Your task to perform on an android device: choose inbox layout in the gmail app Image 0: 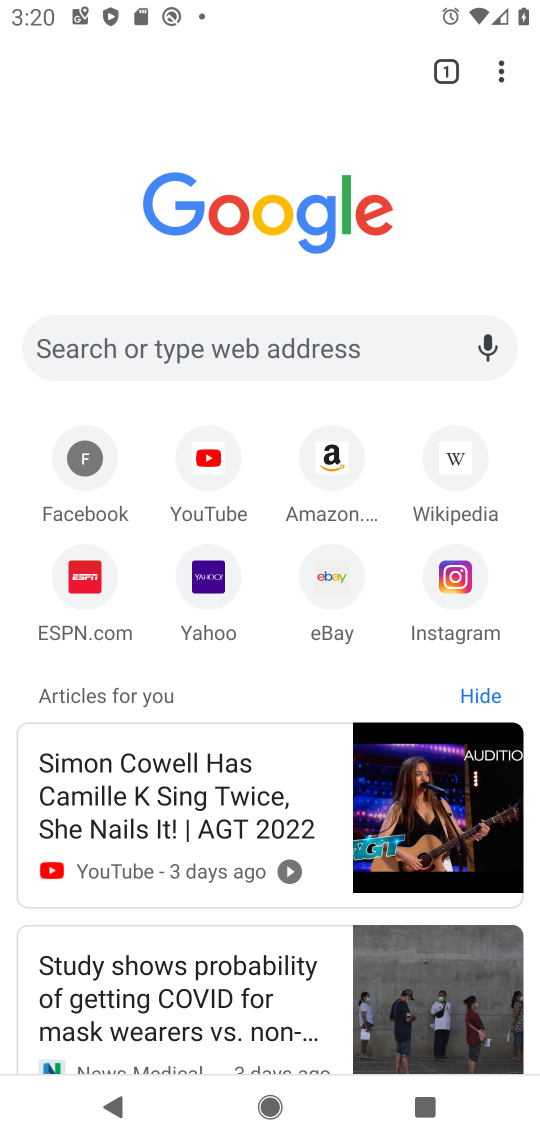
Step 0: press back button
Your task to perform on an android device: choose inbox layout in the gmail app Image 1: 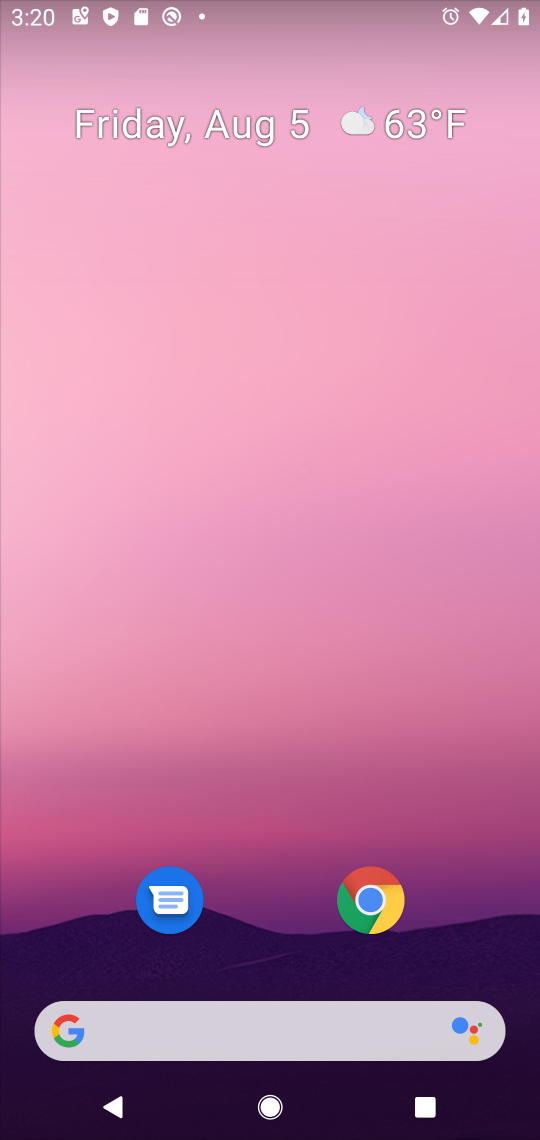
Step 1: drag from (312, 745) to (373, 19)
Your task to perform on an android device: choose inbox layout in the gmail app Image 2: 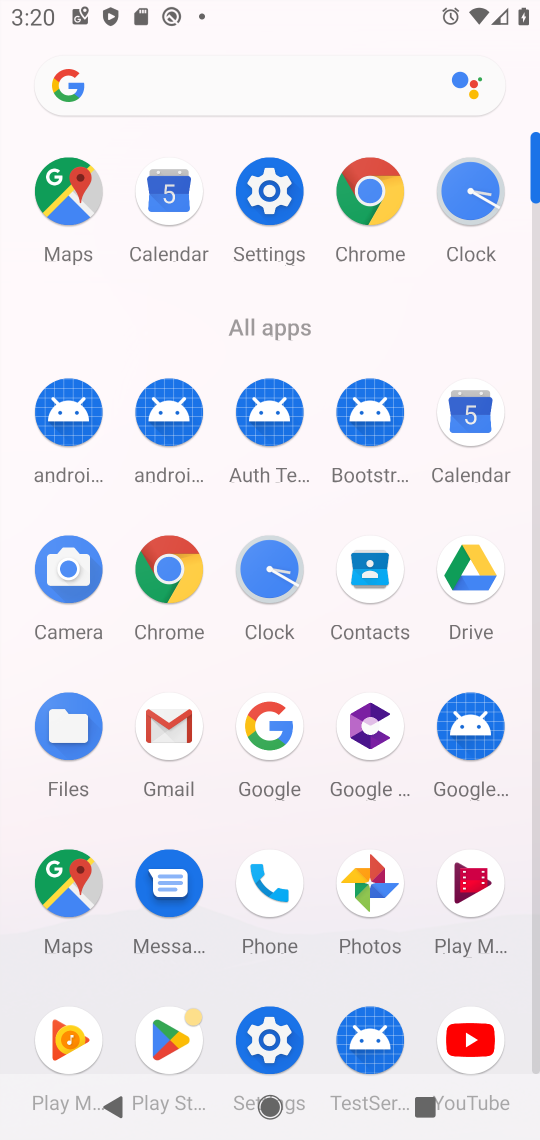
Step 2: click (158, 732)
Your task to perform on an android device: choose inbox layout in the gmail app Image 3: 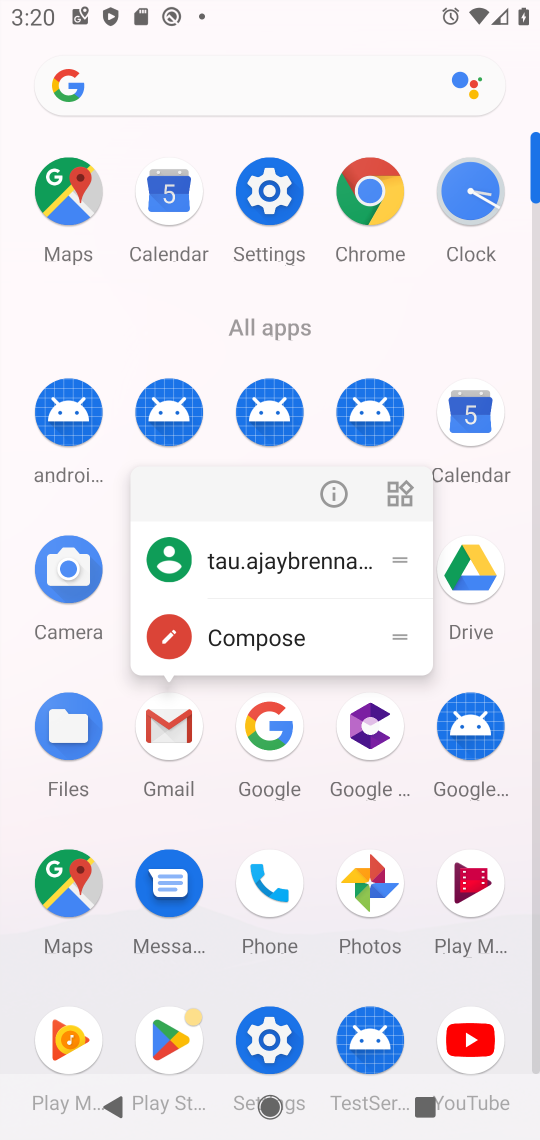
Step 3: click (167, 722)
Your task to perform on an android device: choose inbox layout in the gmail app Image 4: 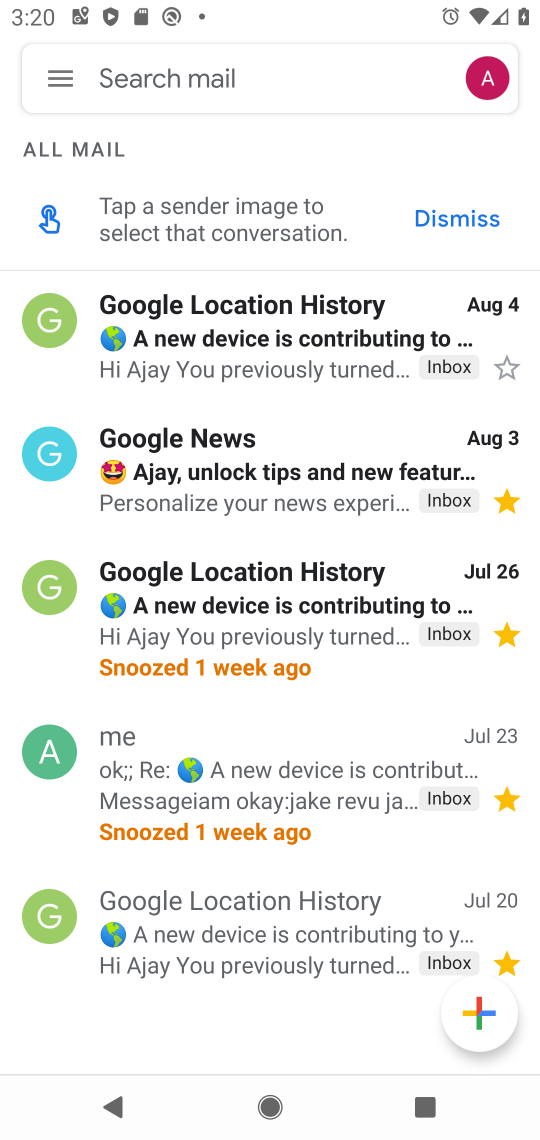
Step 4: click (481, 71)
Your task to perform on an android device: choose inbox layout in the gmail app Image 5: 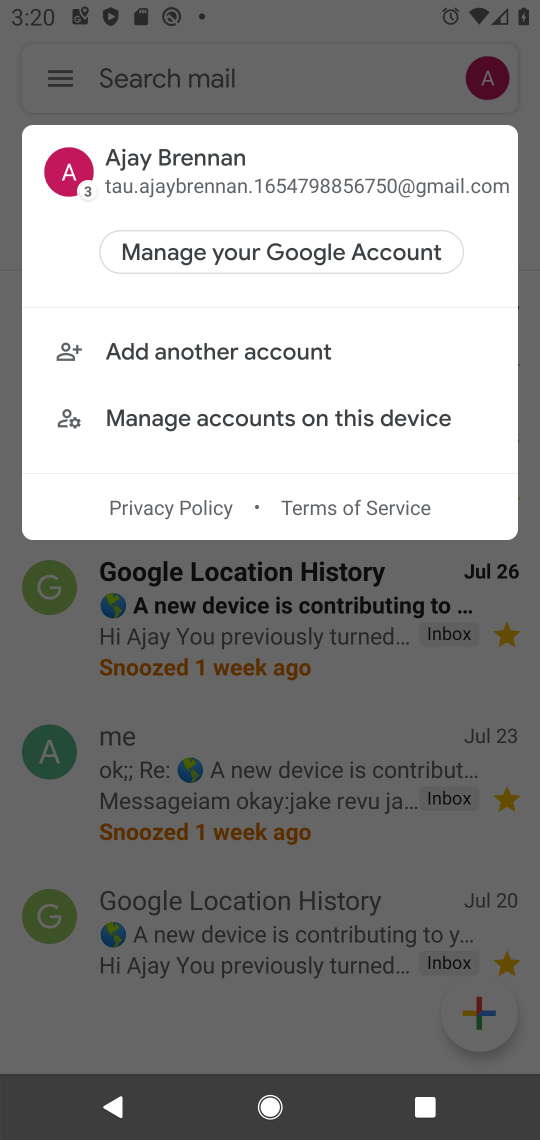
Step 5: click (480, 73)
Your task to perform on an android device: choose inbox layout in the gmail app Image 6: 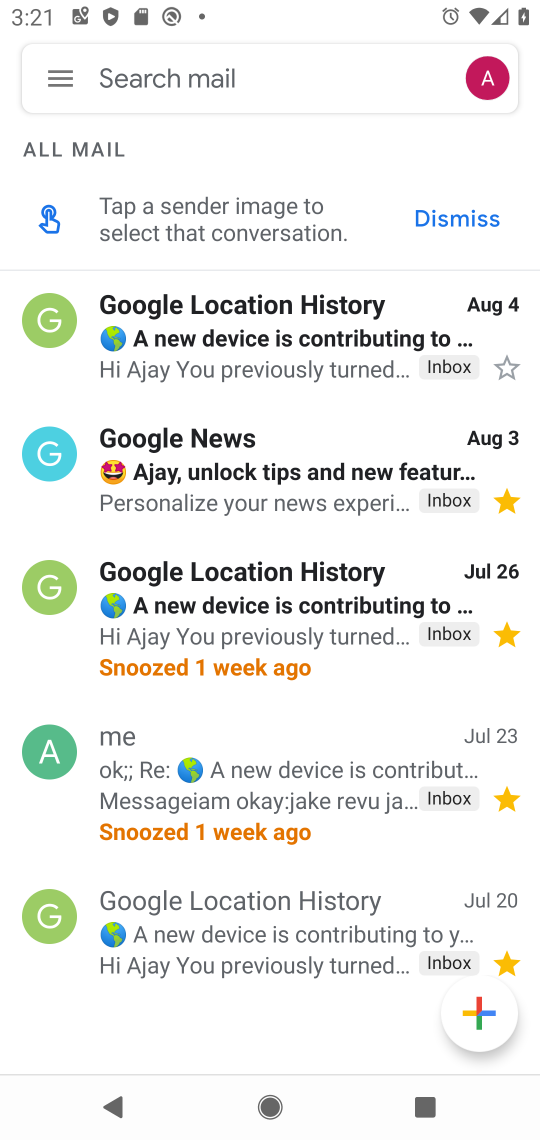
Step 6: click (484, 87)
Your task to perform on an android device: choose inbox layout in the gmail app Image 7: 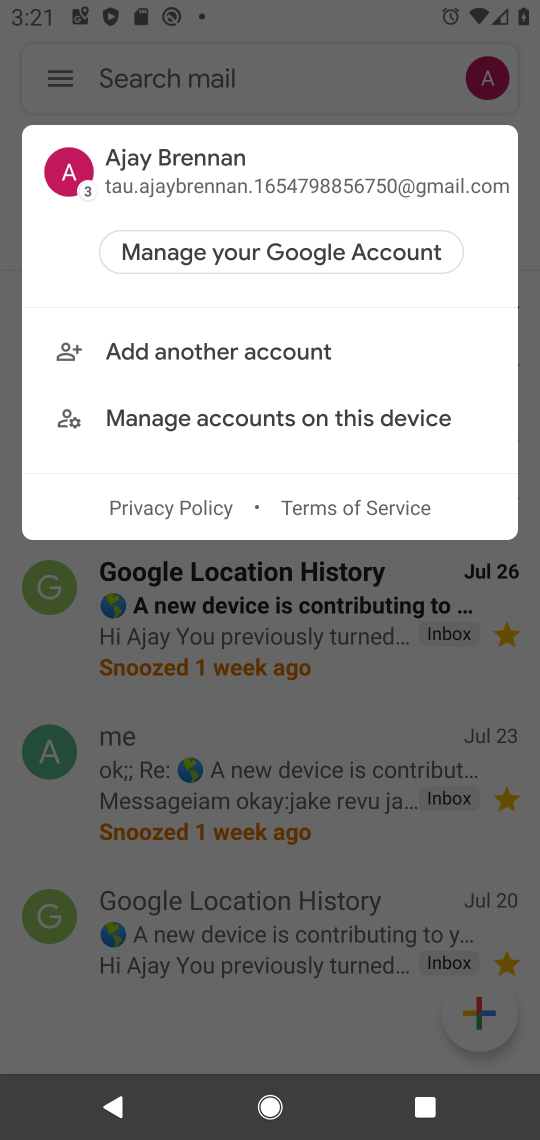
Step 7: click (340, 94)
Your task to perform on an android device: choose inbox layout in the gmail app Image 8: 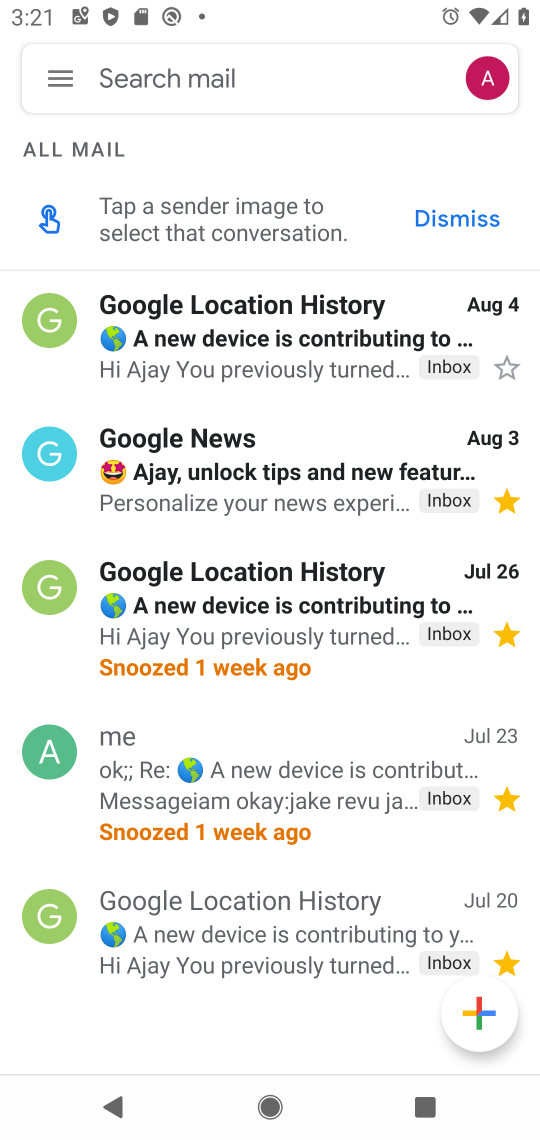
Step 8: click (60, 86)
Your task to perform on an android device: choose inbox layout in the gmail app Image 9: 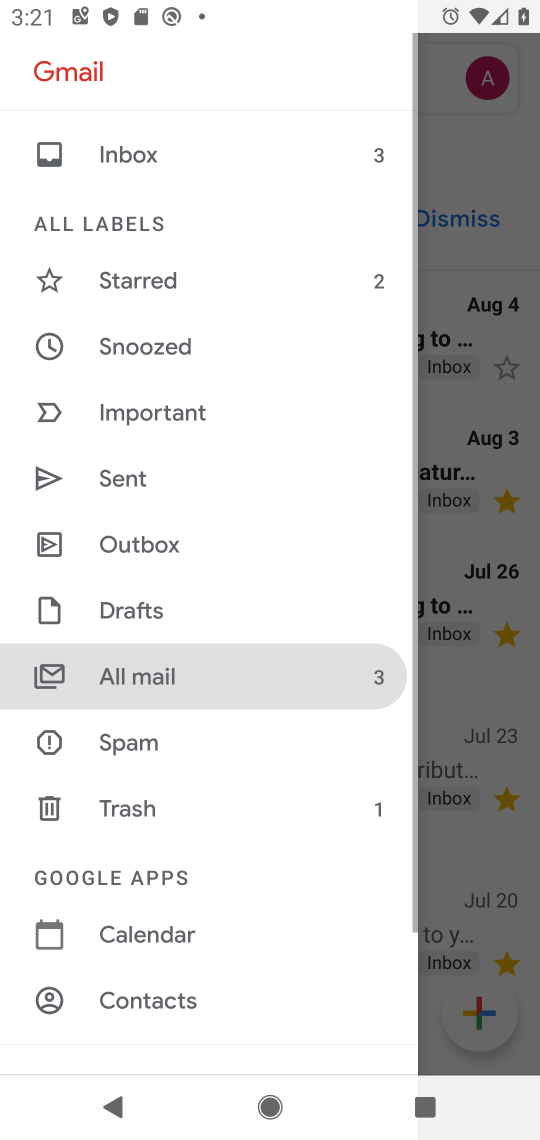
Step 9: drag from (162, 944) to (339, 10)
Your task to perform on an android device: choose inbox layout in the gmail app Image 10: 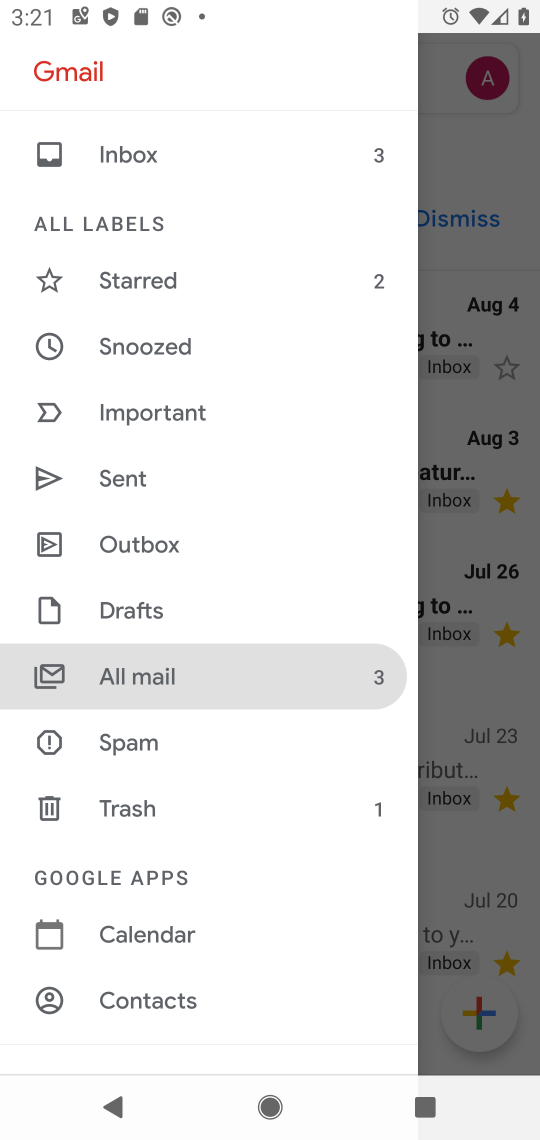
Step 10: drag from (134, 990) to (183, 288)
Your task to perform on an android device: choose inbox layout in the gmail app Image 11: 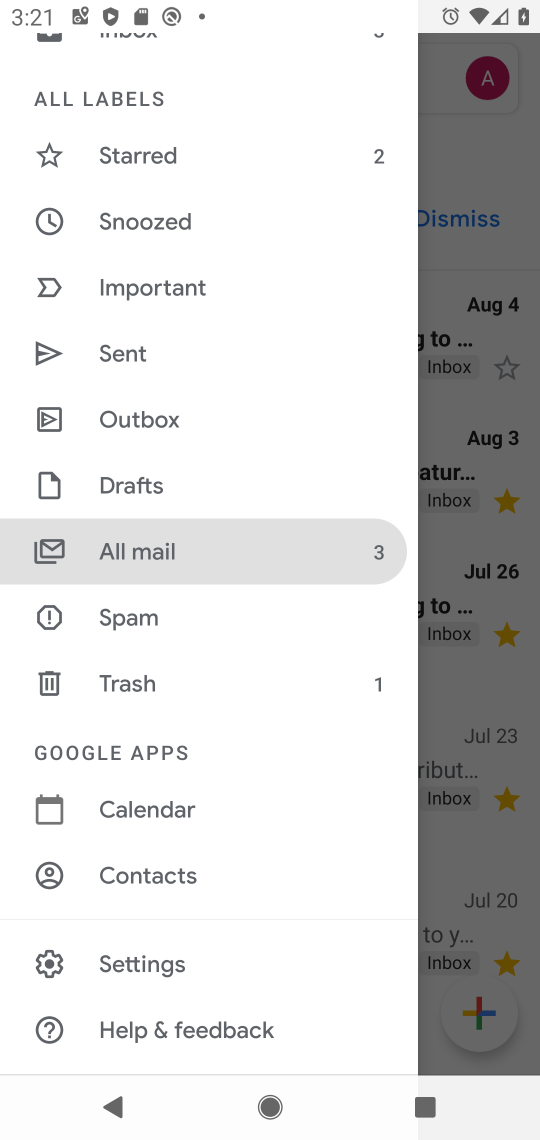
Step 11: click (195, 959)
Your task to perform on an android device: choose inbox layout in the gmail app Image 12: 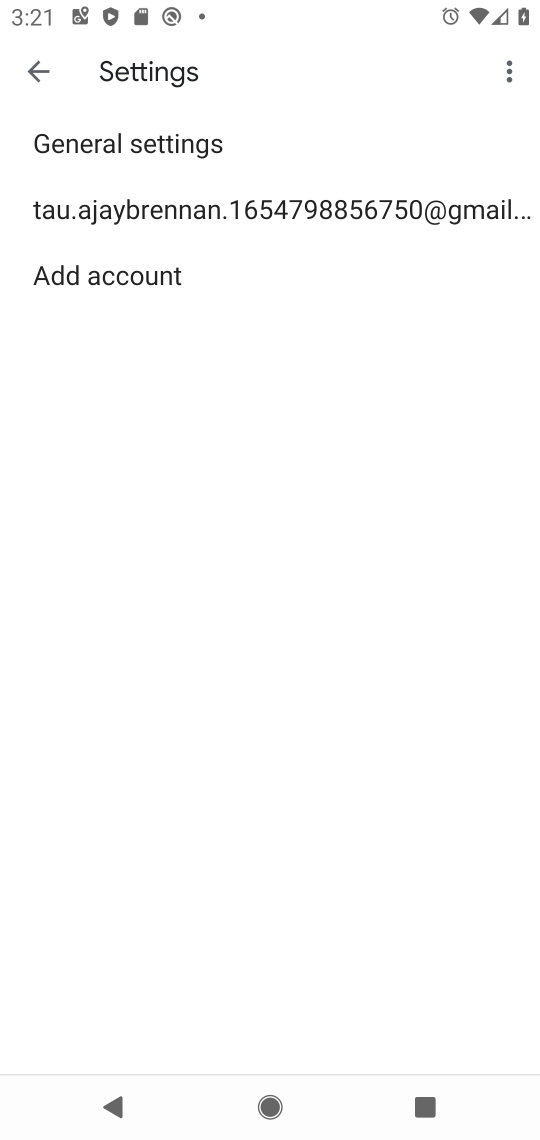
Step 12: click (171, 222)
Your task to perform on an android device: choose inbox layout in the gmail app Image 13: 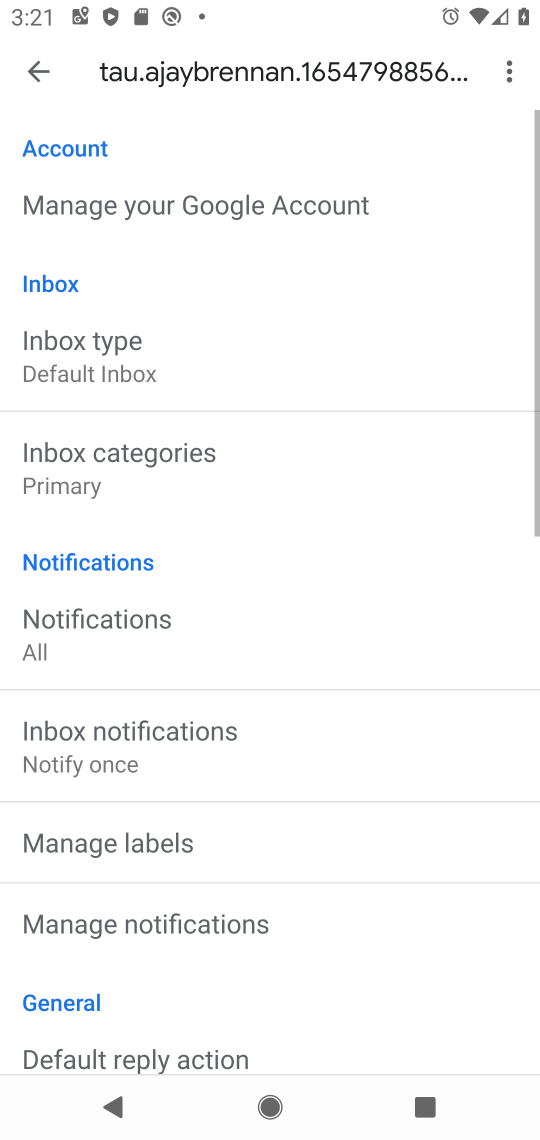
Step 13: click (181, 333)
Your task to perform on an android device: choose inbox layout in the gmail app Image 14: 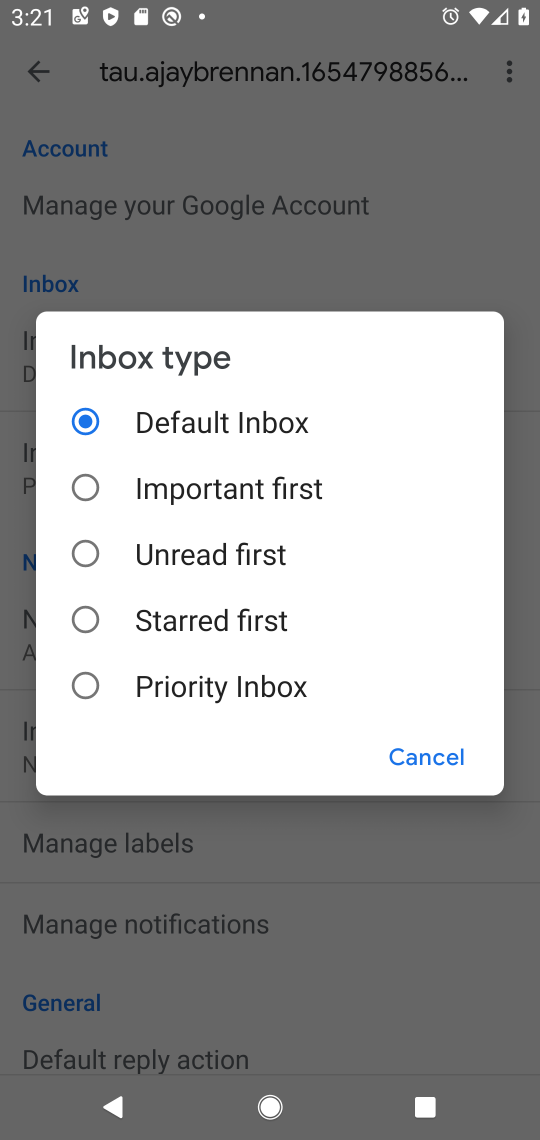
Step 14: click (85, 480)
Your task to perform on an android device: choose inbox layout in the gmail app Image 15: 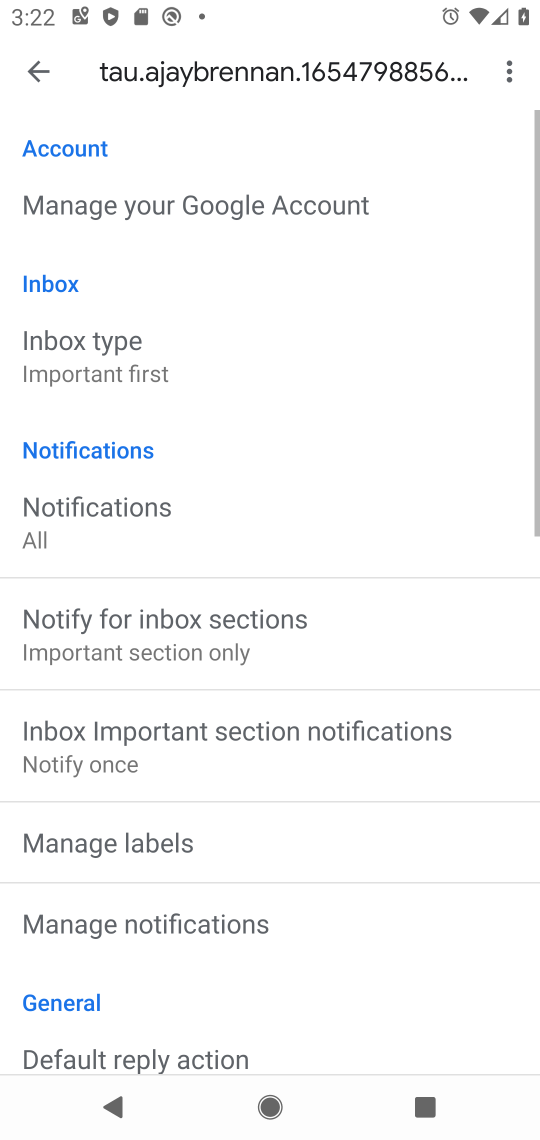
Step 15: task complete